Your task to perform on an android device: Go to calendar. Show me events next week Image 0: 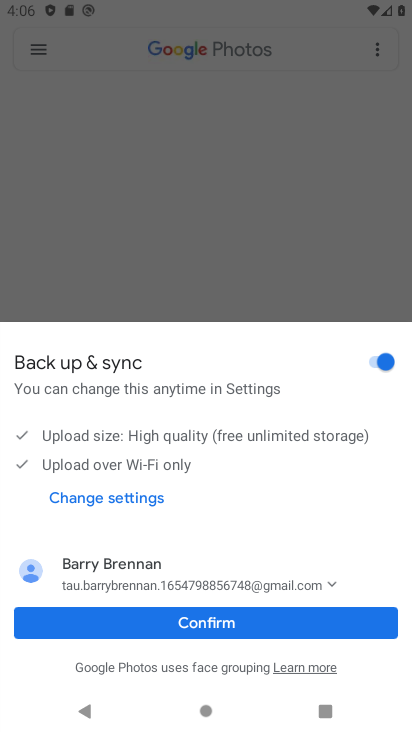
Step 0: press back button
Your task to perform on an android device: Go to calendar. Show me events next week Image 1: 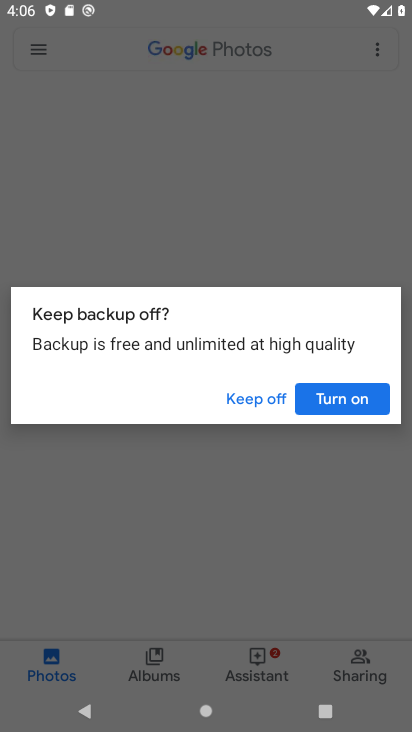
Step 1: click (256, 395)
Your task to perform on an android device: Go to calendar. Show me events next week Image 2: 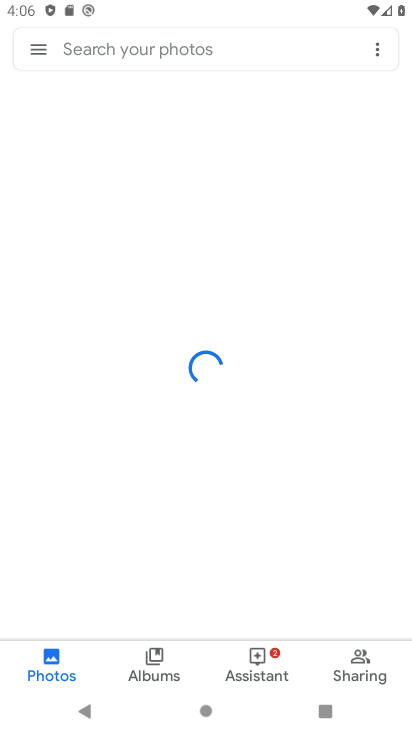
Step 2: press back button
Your task to perform on an android device: Go to calendar. Show me events next week Image 3: 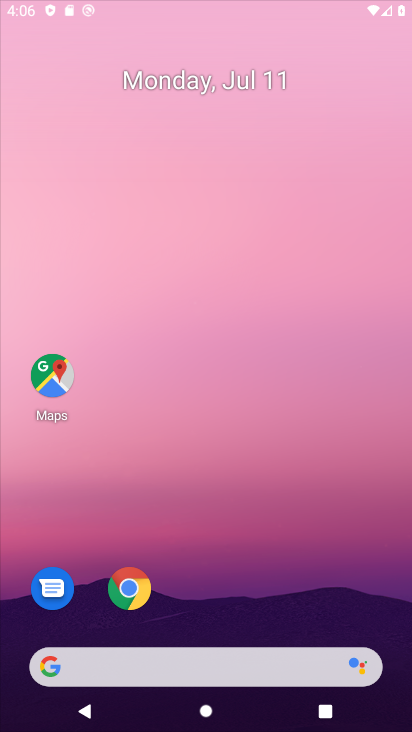
Step 3: press home button
Your task to perform on an android device: Go to calendar. Show me events next week Image 4: 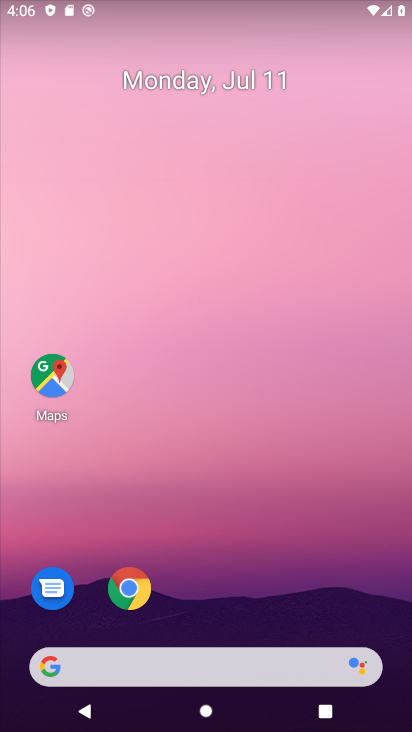
Step 4: drag from (290, 642) to (283, 77)
Your task to perform on an android device: Go to calendar. Show me events next week Image 5: 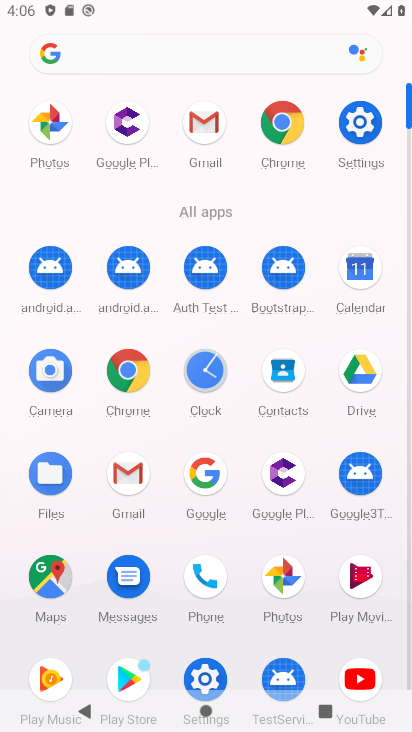
Step 5: click (364, 276)
Your task to perform on an android device: Go to calendar. Show me events next week Image 6: 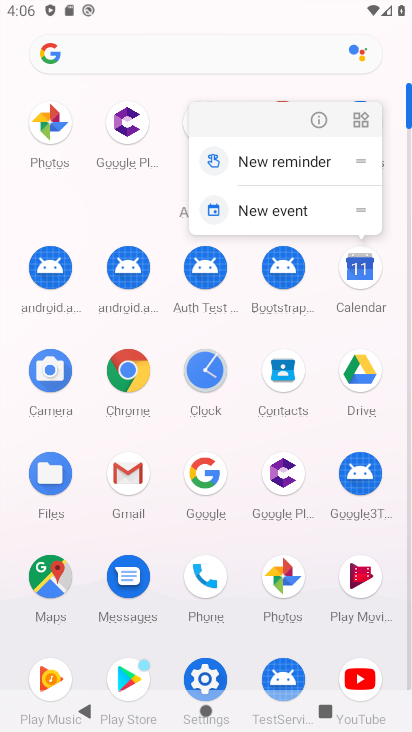
Step 6: click (364, 274)
Your task to perform on an android device: Go to calendar. Show me events next week Image 7: 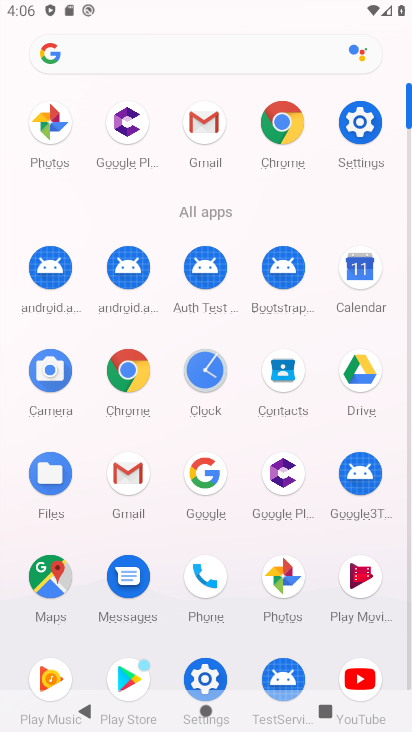
Step 7: click (364, 272)
Your task to perform on an android device: Go to calendar. Show me events next week Image 8: 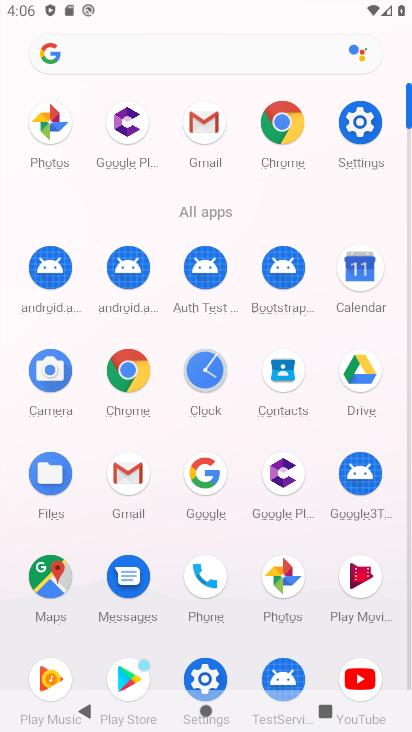
Step 8: click (364, 272)
Your task to perform on an android device: Go to calendar. Show me events next week Image 9: 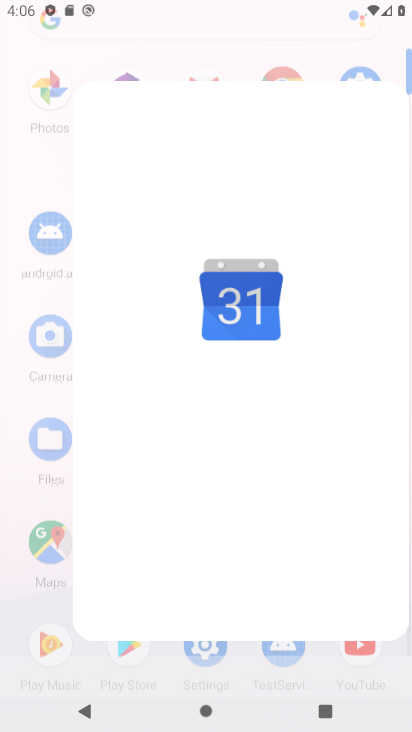
Step 9: click (364, 272)
Your task to perform on an android device: Go to calendar. Show me events next week Image 10: 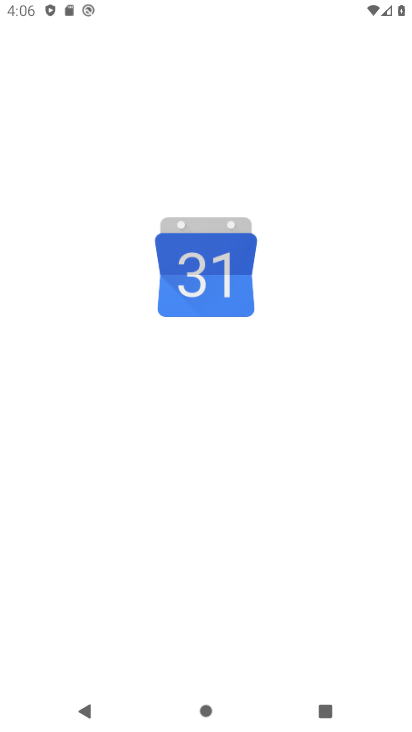
Step 10: click (364, 272)
Your task to perform on an android device: Go to calendar. Show me events next week Image 11: 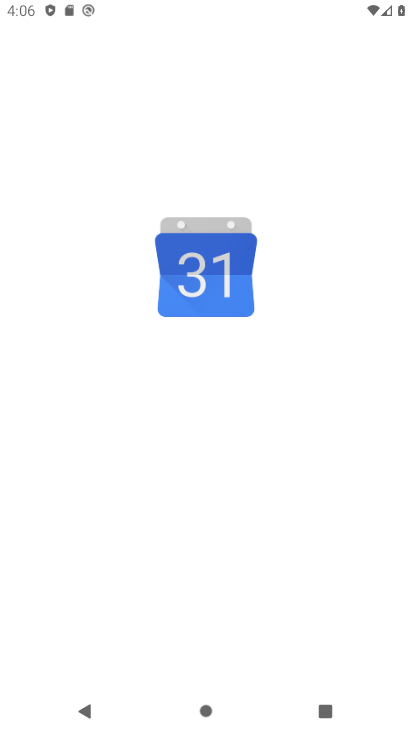
Step 11: click (364, 271)
Your task to perform on an android device: Go to calendar. Show me events next week Image 12: 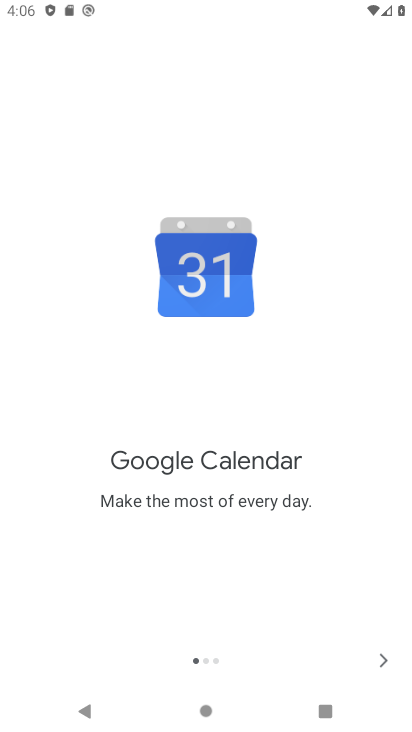
Step 12: click (381, 658)
Your task to perform on an android device: Go to calendar. Show me events next week Image 13: 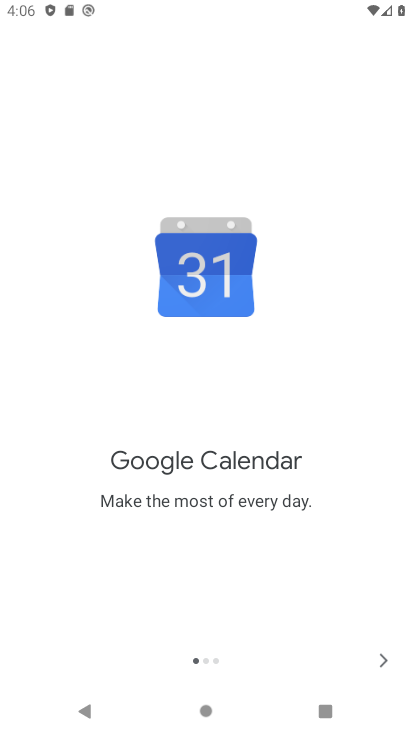
Step 13: click (381, 658)
Your task to perform on an android device: Go to calendar. Show me events next week Image 14: 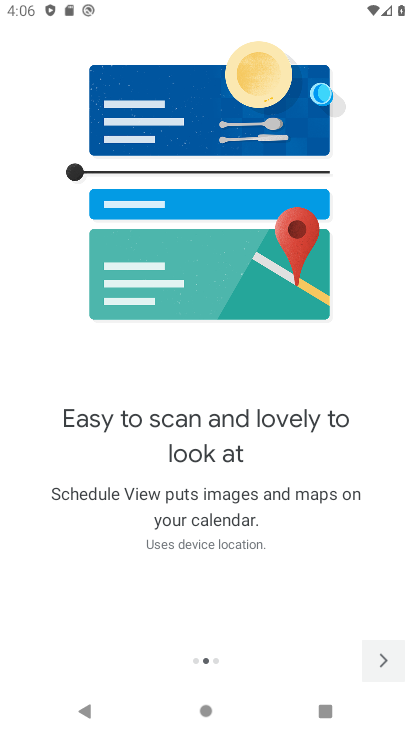
Step 14: click (381, 658)
Your task to perform on an android device: Go to calendar. Show me events next week Image 15: 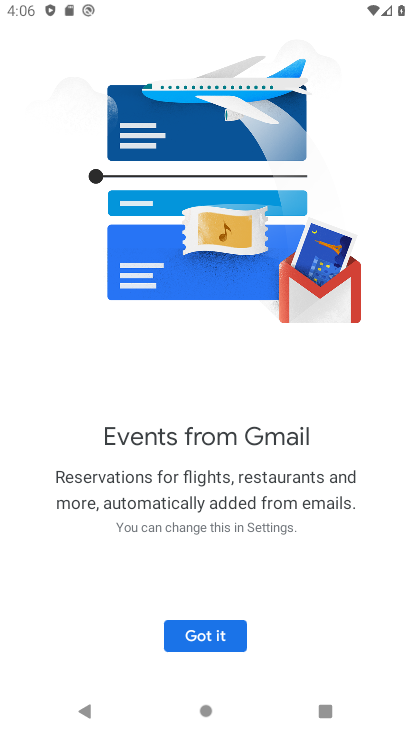
Step 15: click (381, 658)
Your task to perform on an android device: Go to calendar. Show me events next week Image 16: 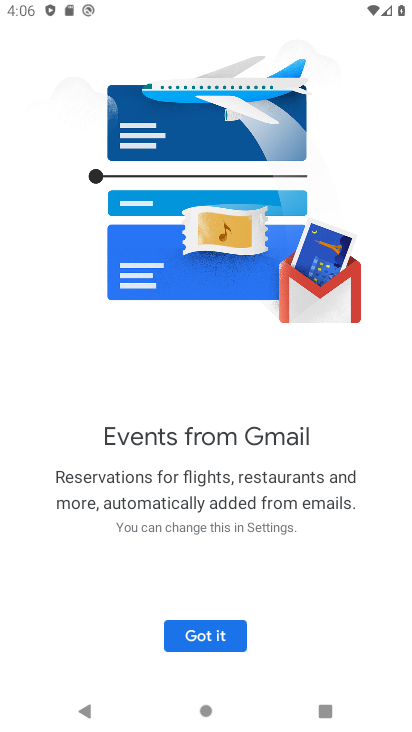
Step 16: click (381, 658)
Your task to perform on an android device: Go to calendar. Show me events next week Image 17: 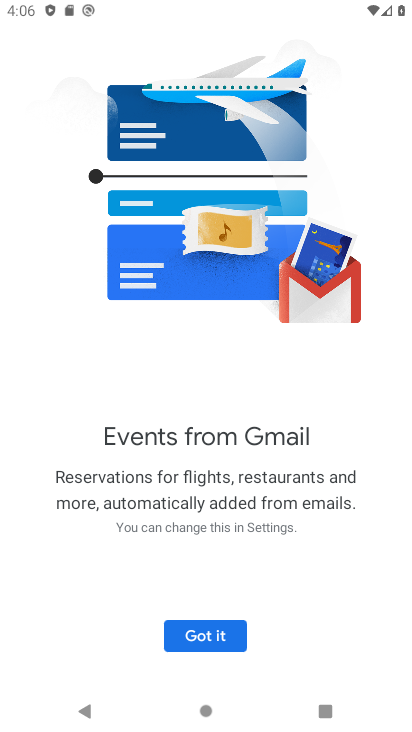
Step 17: click (232, 628)
Your task to perform on an android device: Go to calendar. Show me events next week Image 18: 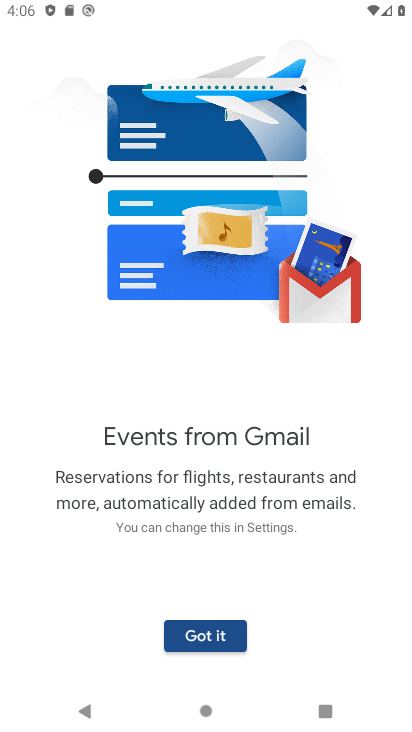
Step 18: click (231, 628)
Your task to perform on an android device: Go to calendar. Show me events next week Image 19: 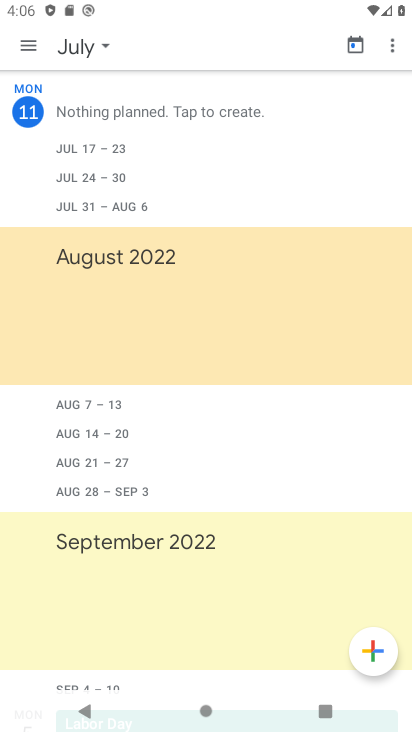
Step 19: click (119, 152)
Your task to perform on an android device: Go to calendar. Show me events next week Image 20: 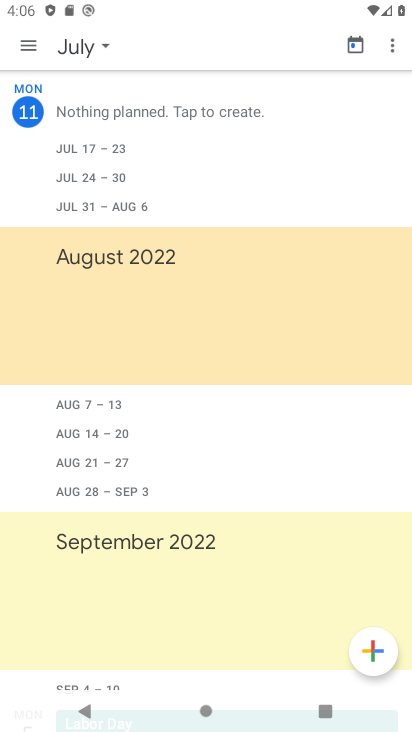
Step 20: click (119, 152)
Your task to perform on an android device: Go to calendar. Show me events next week Image 21: 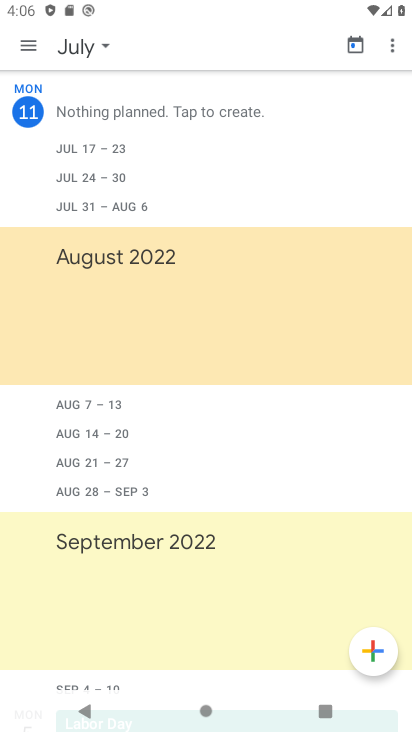
Step 21: click (118, 151)
Your task to perform on an android device: Go to calendar. Show me events next week Image 22: 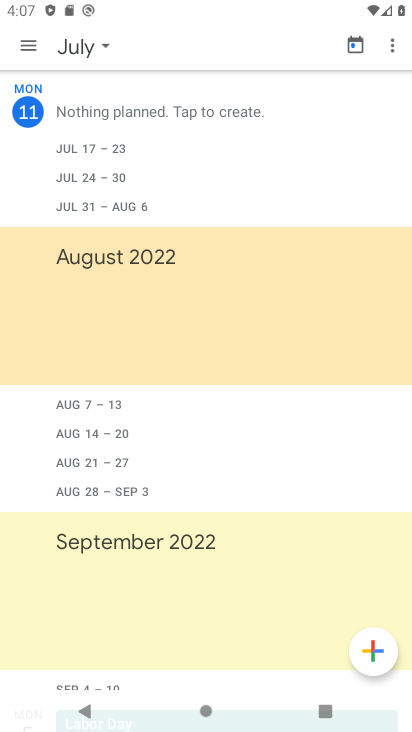
Step 22: click (117, 153)
Your task to perform on an android device: Go to calendar. Show me events next week Image 23: 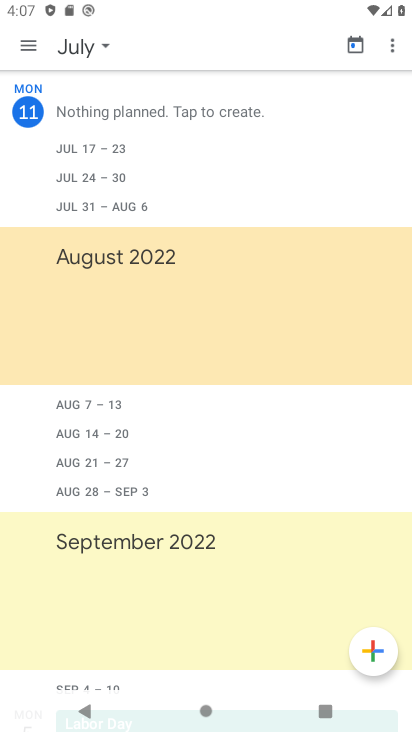
Step 23: click (117, 153)
Your task to perform on an android device: Go to calendar. Show me events next week Image 24: 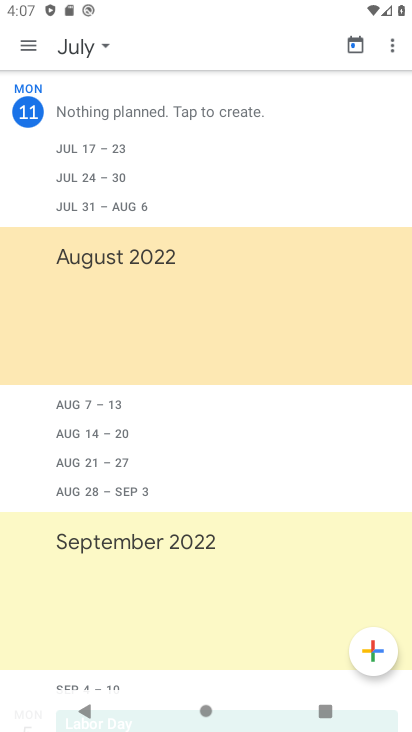
Step 24: click (98, 149)
Your task to perform on an android device: Go to calendar. Show me events next week Image 25: 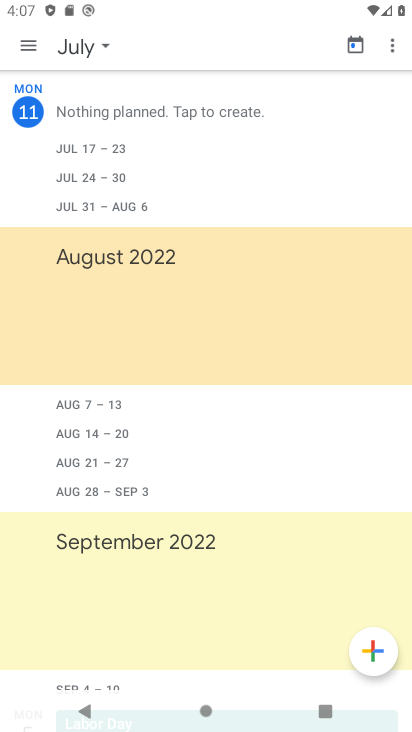
Step 25: click (104, 145)
Your task to perform on an android device: Go to calendar. Show me events next week Image 26: 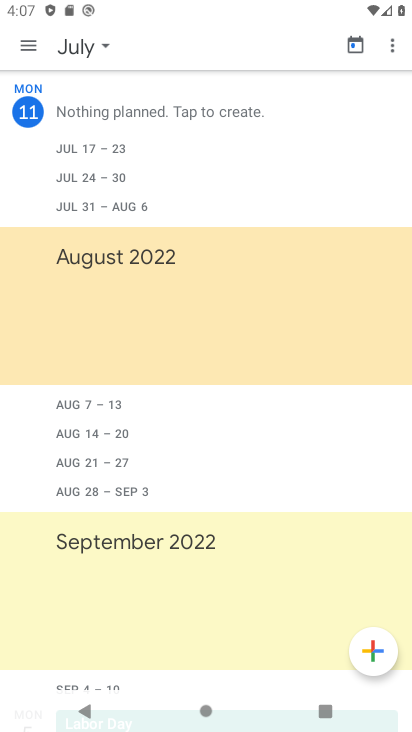
Step 26: click (104, 145)
Your task to perform on an android device: Go to calendar. Show me events next week Image 27: 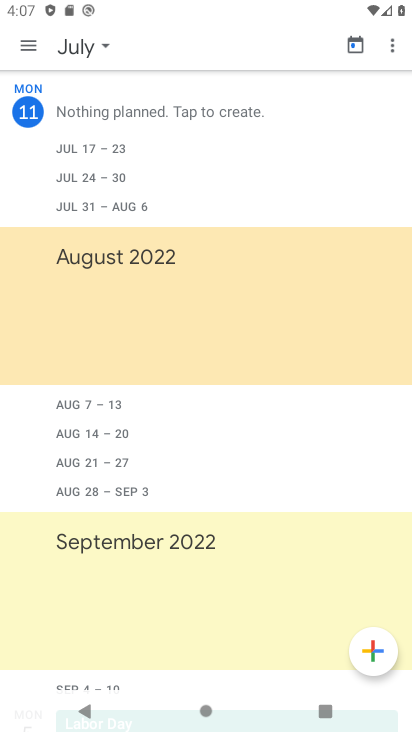
Step 27: click (101, 146)
Your task to perform on an android device: Go to calendar. Show me events next week Image 28: 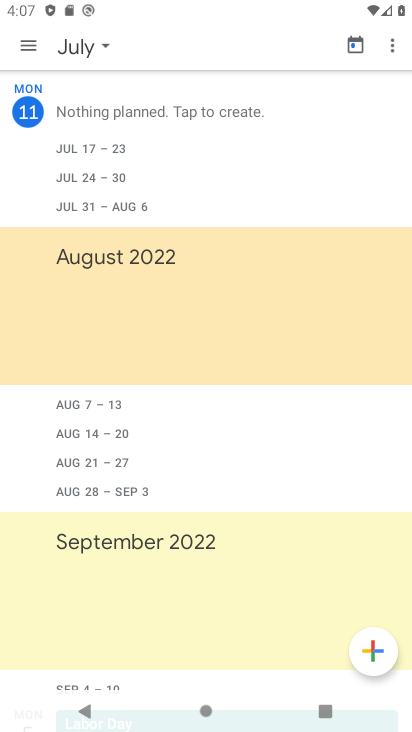
Step 28: click (104, 149)
Your task to perform on an android device: Go to calendar. Show me events next week Image 29: 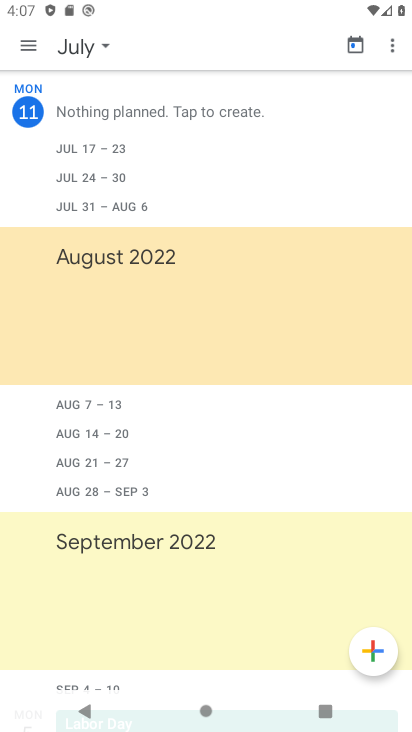
Step 29: task complete